Your task to perform on an android device: Open Youtube and go to "Your channel" Image 0: 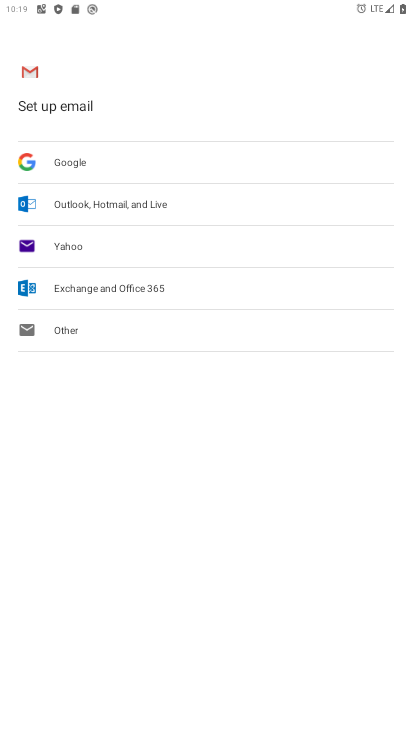
Step 0: press home button
Your task to perform on an android device: Open Youtube and go to "Your channel" Image 1: 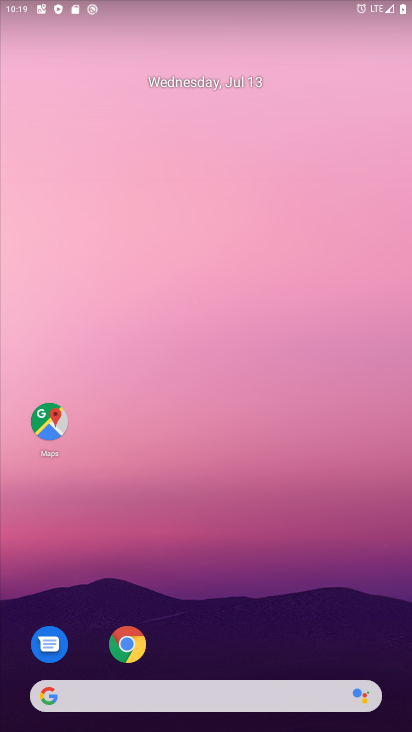
Step 1: drag from (209, 711) to (216, 191)
Your task to perform on an android device: Open Youtube and go to "Your channel" Image 2: 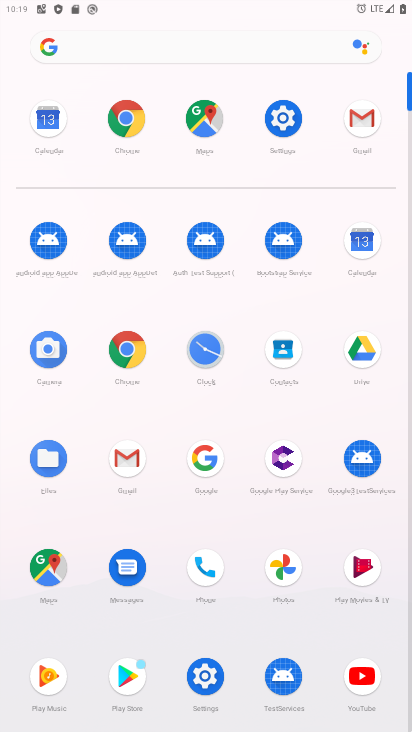
Step 2: click (367, 675)
Your task to perform on an android device: Open Youtube and go to "Your channel" Image 3: 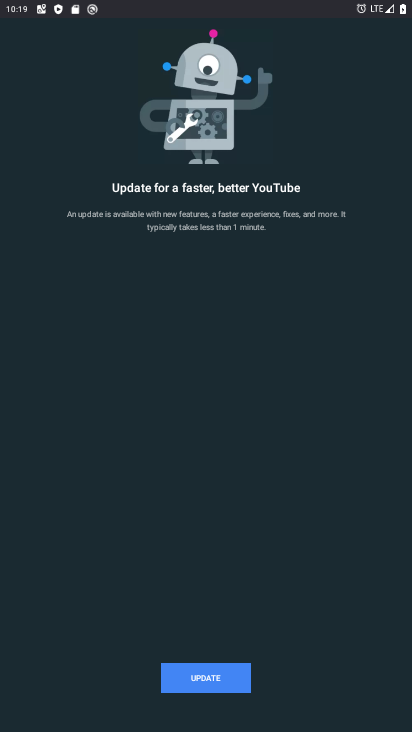
Step 3: task complete